Your task to perform on an android device: Open eBay Image 0: 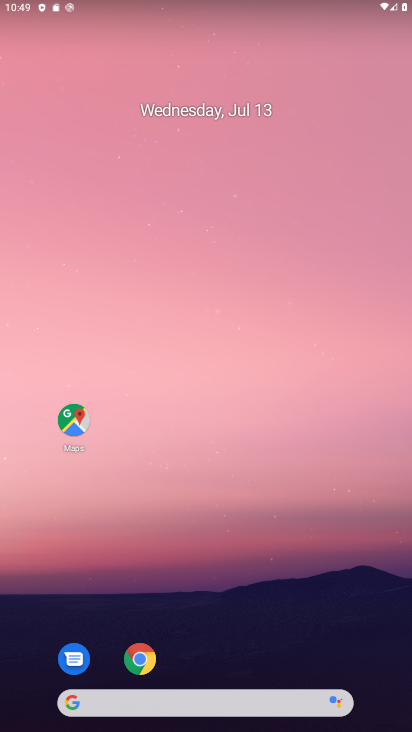
Step 0: click (205, 224)
Your task to perform on an android device: Open eBay Image 1: 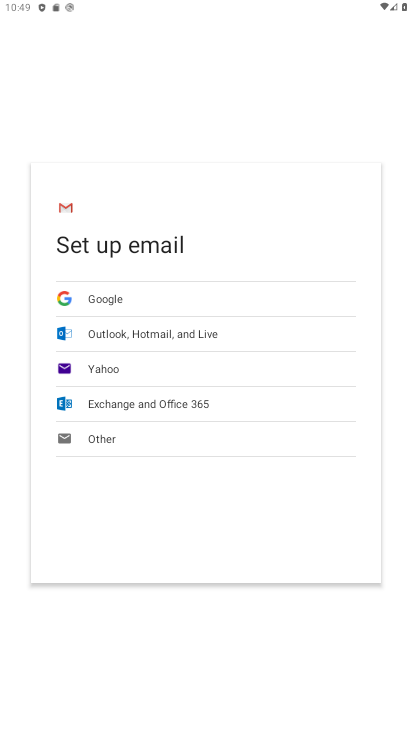
Step 1: click (102, 94)
Your task to perform on an android device: Open eBay Image 2: 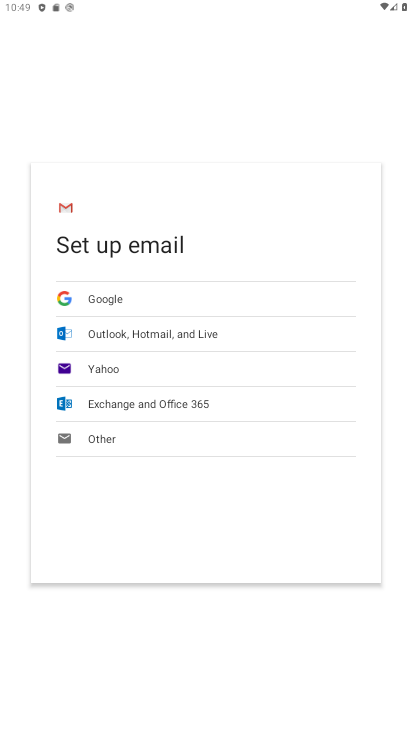
Step 2: click (40, 74)
Your task to perform on an android device: Open eBay Image 3: 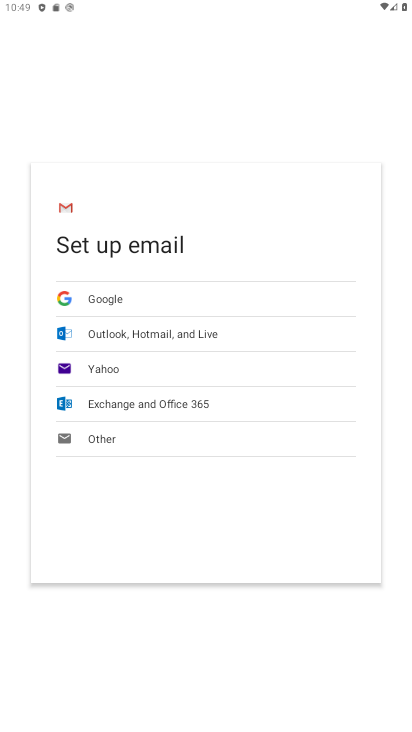
Step 3: press back button
Your task to perform on an android device: Open eBay Image 4: 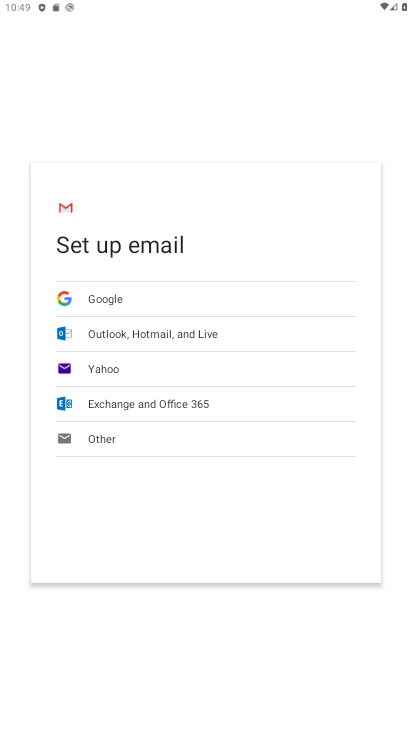
Step 4: press back button
Your task to perform on an android device: Open eBay Image 5: 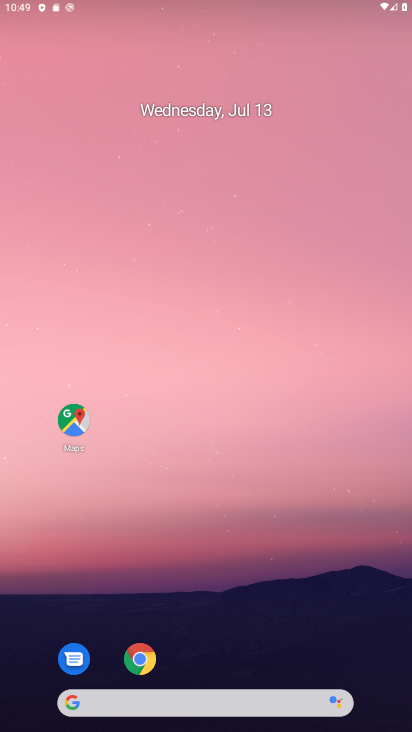
Step 5: press back button
Your task to perform on an android device: Open eBay Image 6: 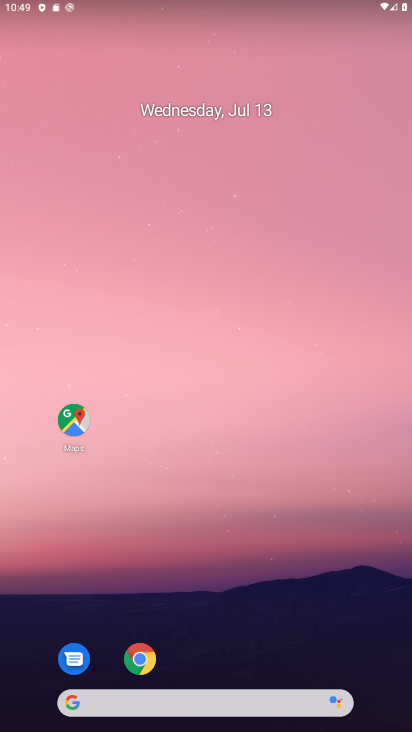
Step 6: drag from (267, 600) to (294, 144)
Your task to perform on an android device: Open eBay Image 7: 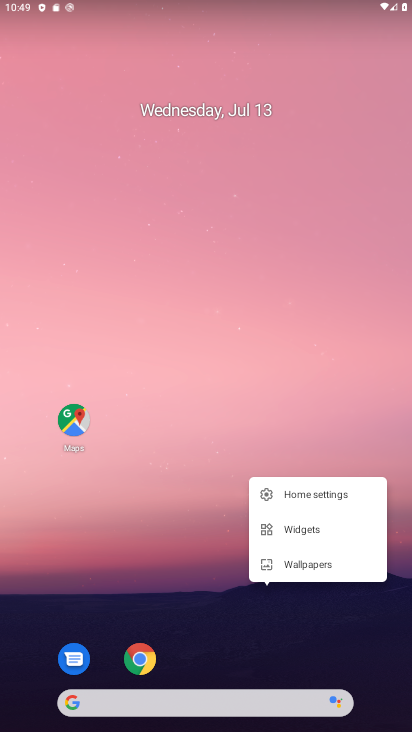
Step 7: drag from (222, 535) to (155, 8)
Your task to perform on an android device: Open eBay Image 8: 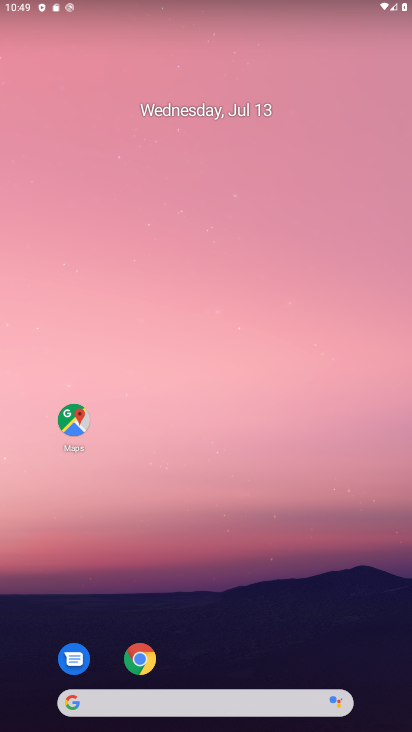
Step 8: drag from (232, 118) to (232, 34)
Your task to perform on an android device: Open eBay Image 9: 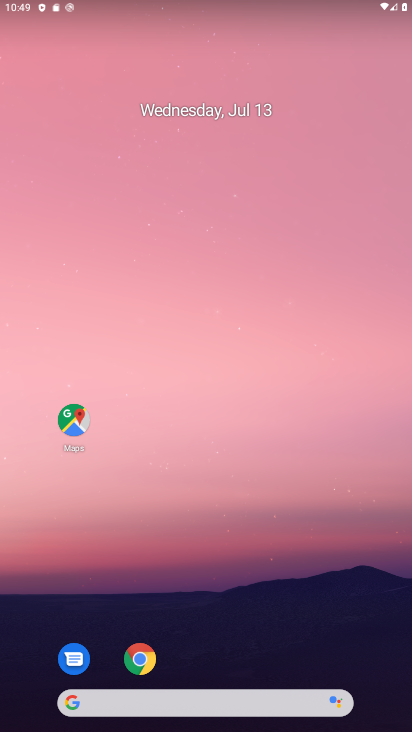
Step 9: click (243, 9)
Your task to perform on an android device: Open eBay Image 10: 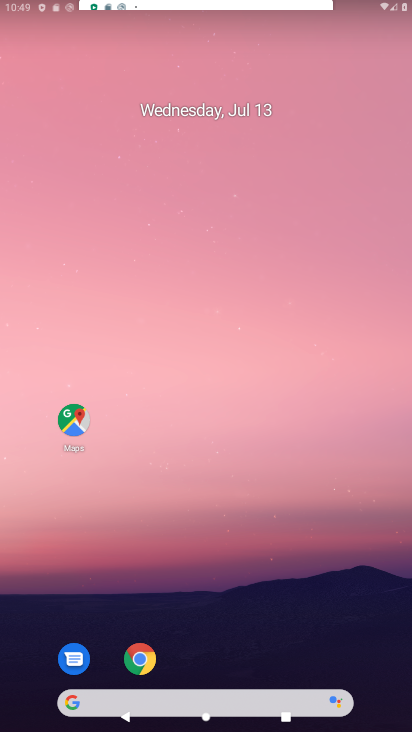
Step 10: click (206, 58)
Your task to perform on an android device: Open eBay Image 11: 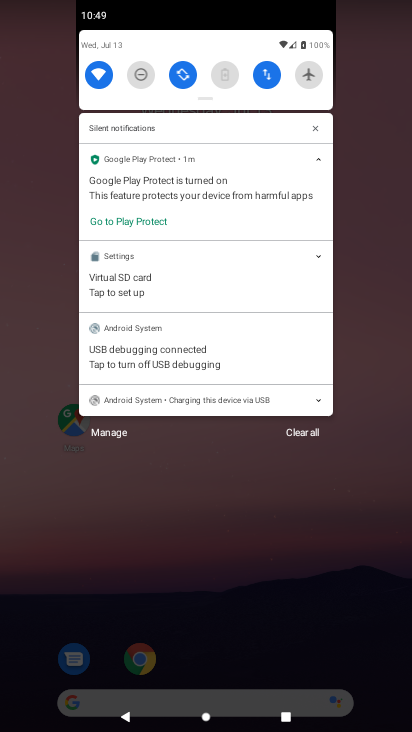
Step 11: click (246, 45)
Your task to perform on an android device: Open eBay Image 12: 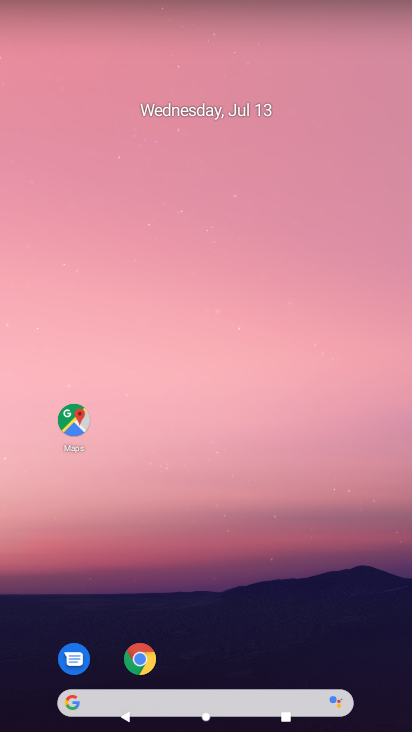
Step 12: drag from (206, 232) to (206, 139)
Your task to perform on an android device: Open eBay Image 13: 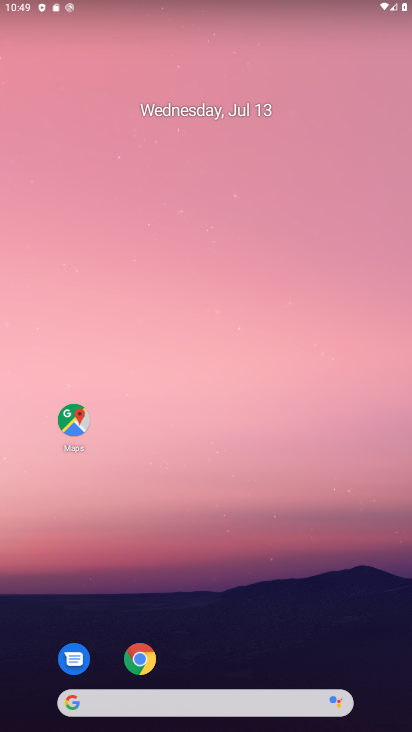
Step 13: drag from (246, 700) to (207, 58)
Your task to perform on an android device: Open eBay Image 14: 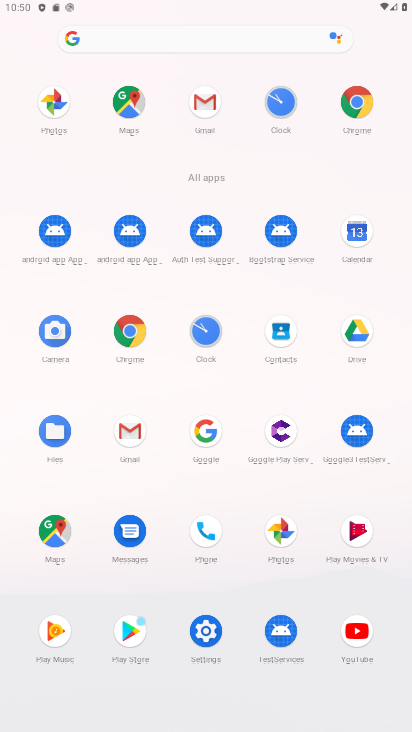
Step 14: click (360, 109)
Your task to perform on an android device: Open eBay Image 15: 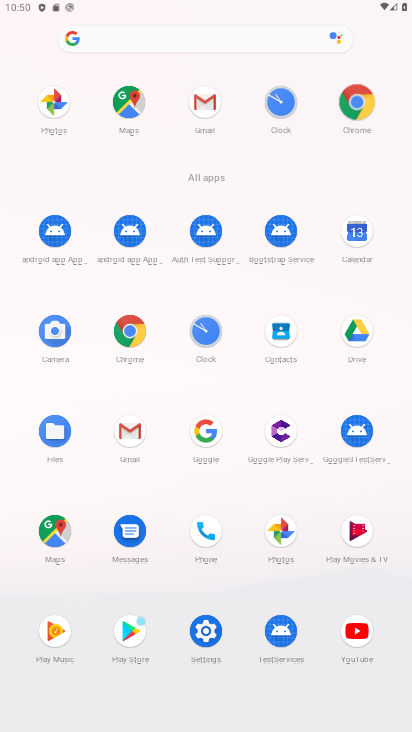
Step 15: click (360, 108)
Your task to perform on an android device: Open eBay Image 16: 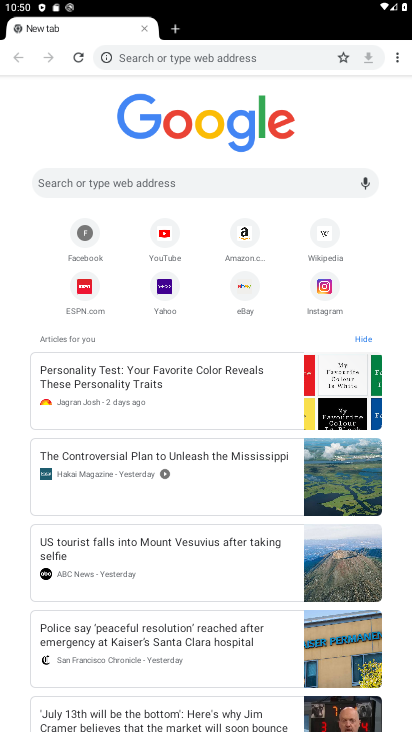
Step 16: click (245, 287)
Your task to perform on an android device: Open eBay Image 17: 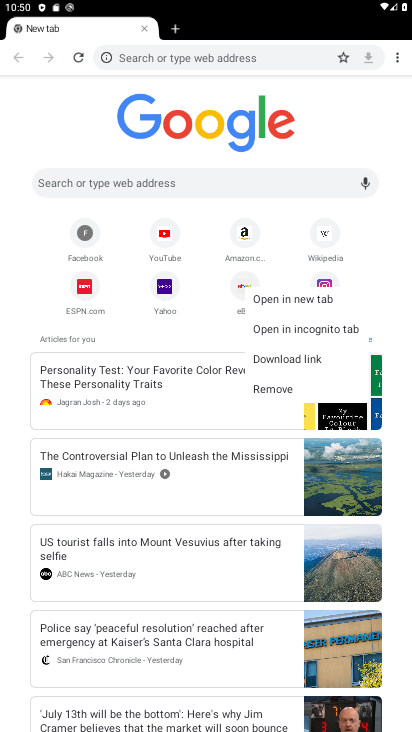
Step 17: click (247, 288)
Your task to perform on an android device: Open eBay Image 18: 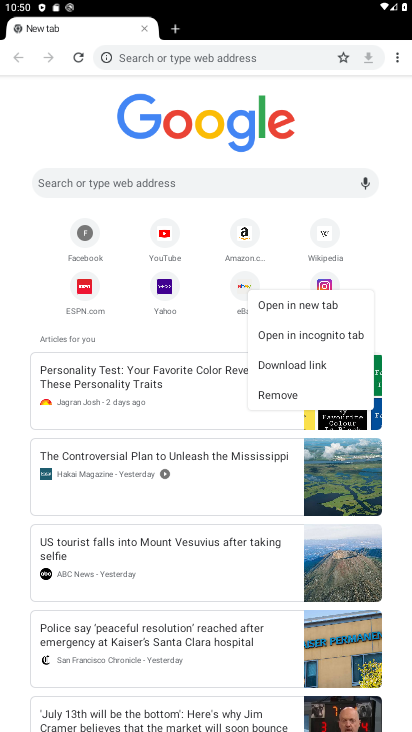
Step 18: click (247, 291)
Your task to perform on an android device: Open eBay Image 19: 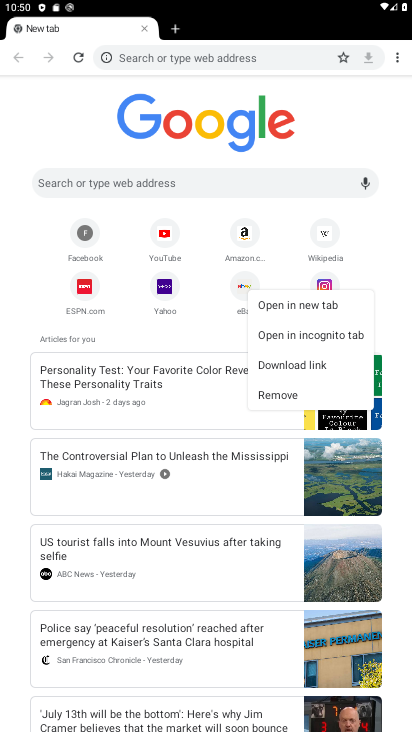
Step 19: click (247, 289)
Your task to perform on an android device: Open eBay Image 20: 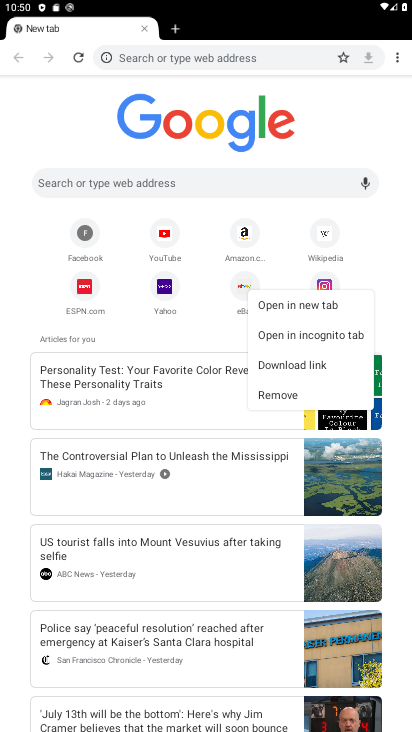
Step 20: click (246, 284)
Your task to perform on an android device: Open eBay Image 21: 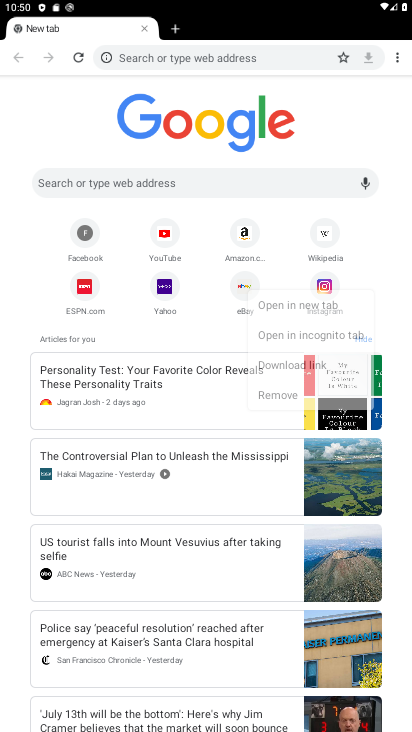
Step 21: click (246, 284)
Your task to perform on an android device: Open eBay Image 22: 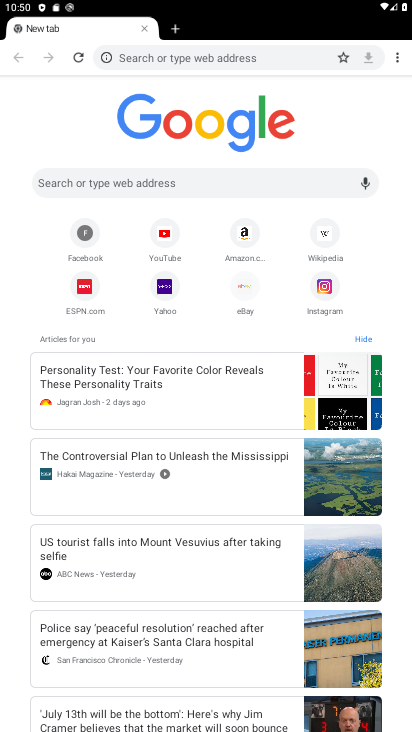
Step 22: click (246, 284)
Your task to perform on an android device: Open eBay Image 23: 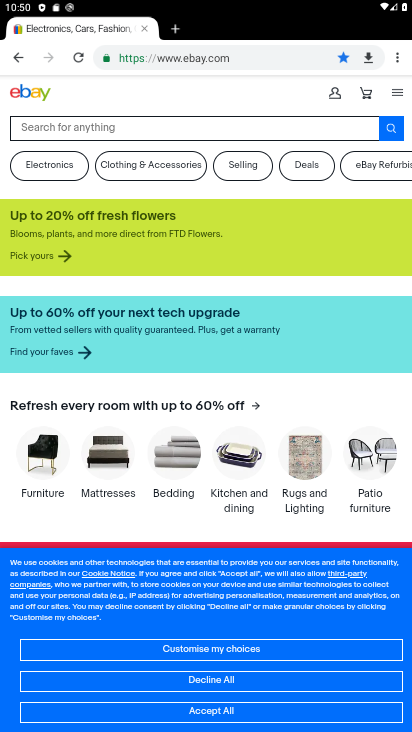
Step 23: task complete